Your task to perform on an android device: Go to Google Image 0: 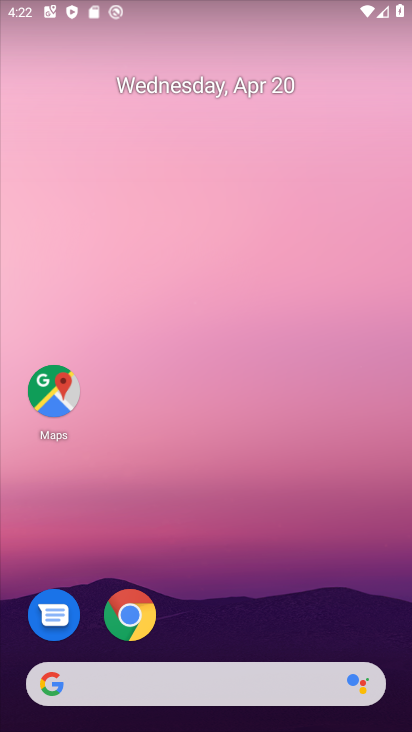
Step 0: drag from (242, 549) to (317, 102)
Your task to perform on an android device: Go to Google Image 1: 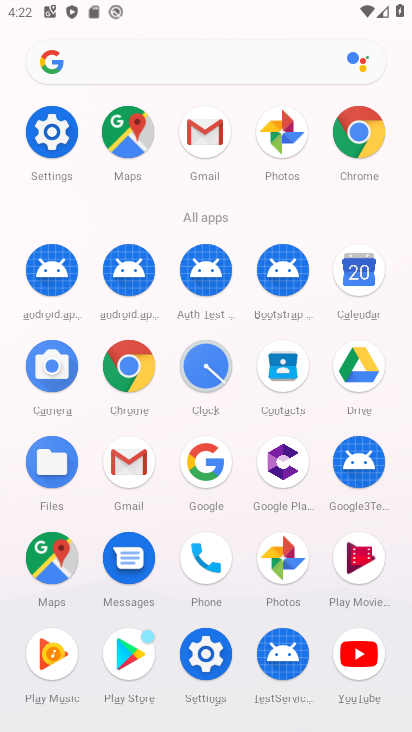
Step 1: click (143, 73)
Your task to perform on an android device: Go to Google Image 2: 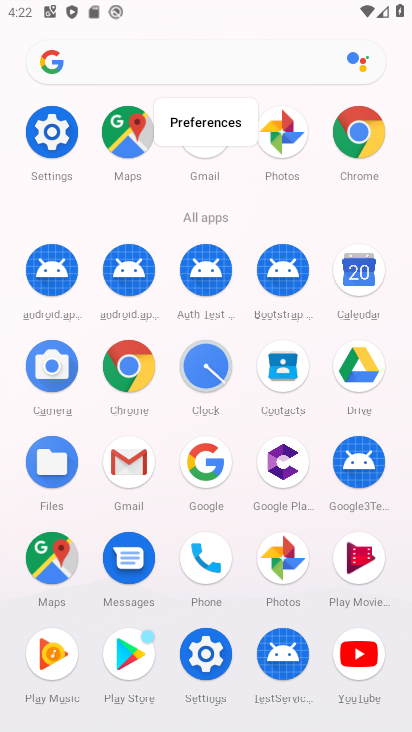
Step 2: click (179, 68)
Your task to perform on an android device: Go to Google Image 3: 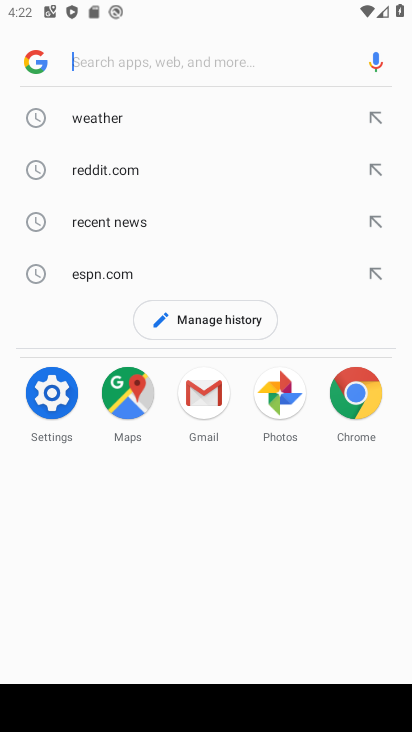
Step 3: click (37, 67)
Your task to perform on an android device: Go to Google Image 4: 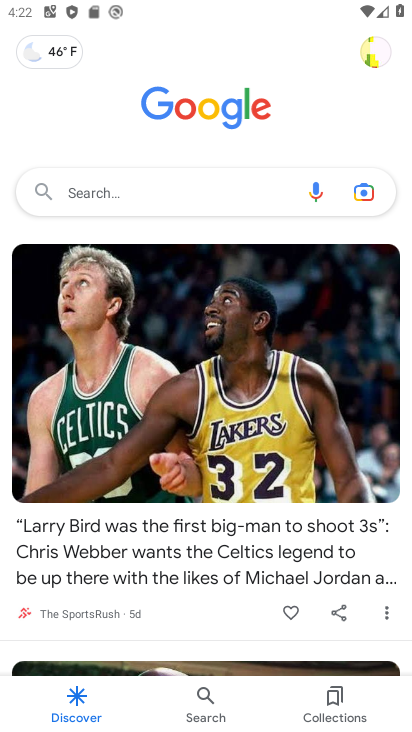
Step 4: task complete